Your task to perform on an android device: Search for duracell triple a on bestbuy.com, select the first entry, add it to the cart, then select checkout. Image 0: 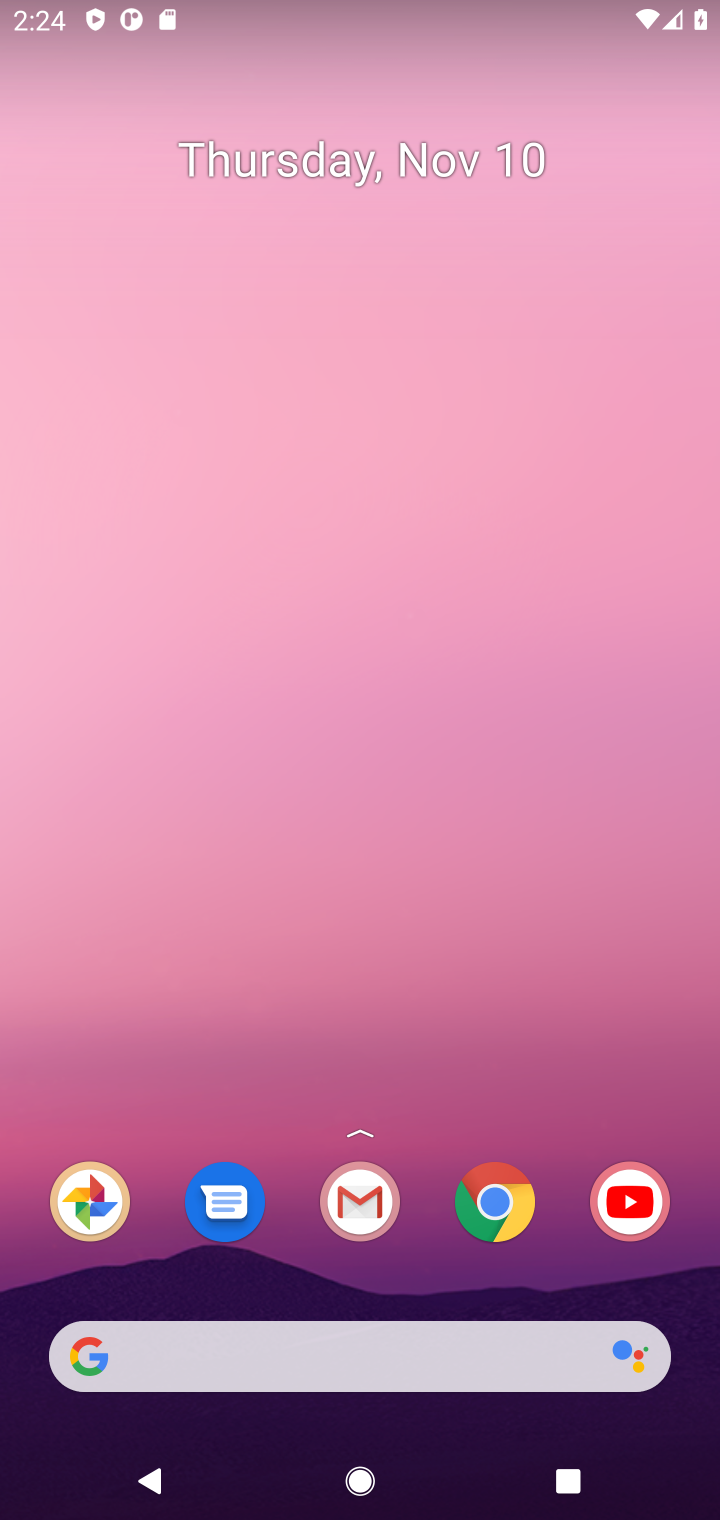
Step 0: click (515, 1200)
Your task to perform on an android device: Search for duracell triple a on bestbuy.com, select the first entry, add it to the cart, then select checkout. Image 1: 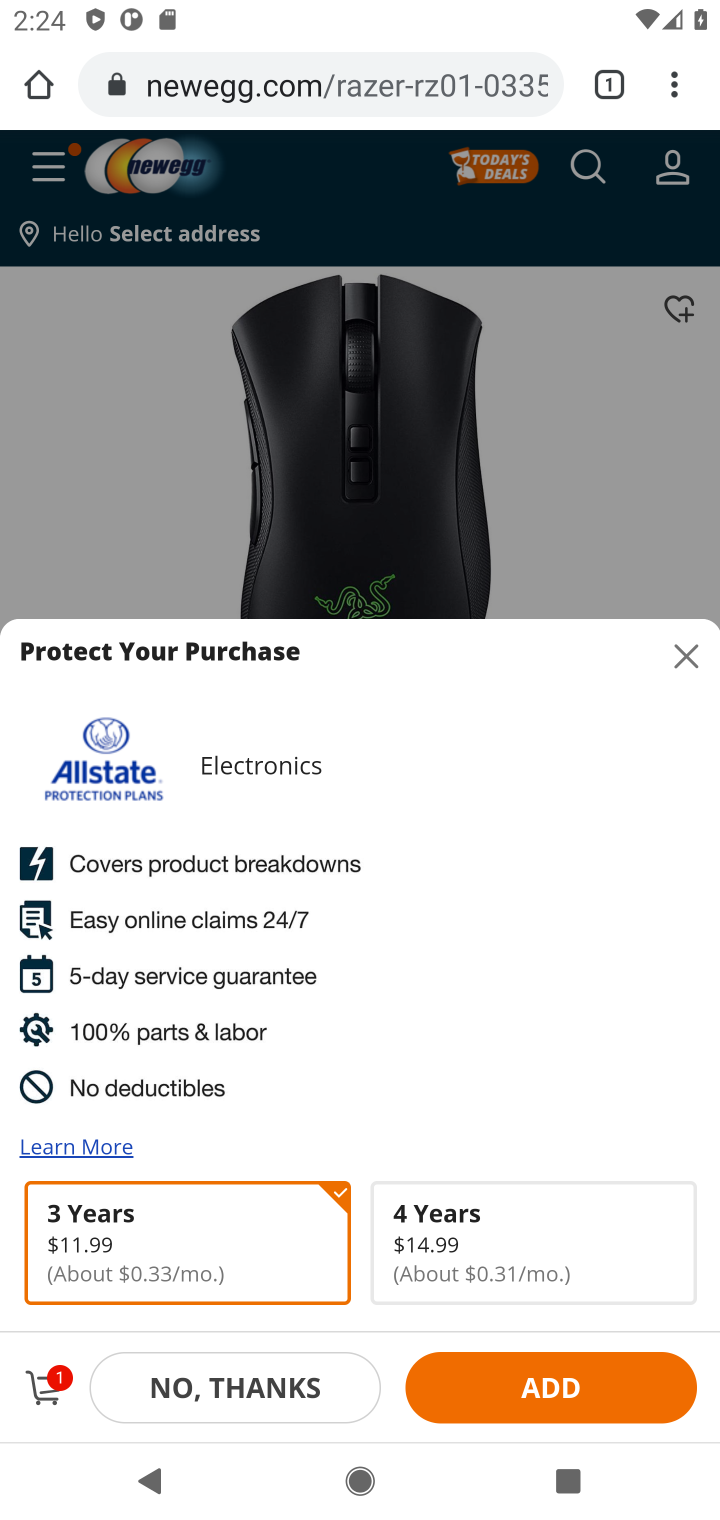
Step 1: click (421, 80)
Your task to perform on an android device: Search for duracell triple a on bestbuy.com, select the first entry, add it to the cart, then select checkout. Image 2: 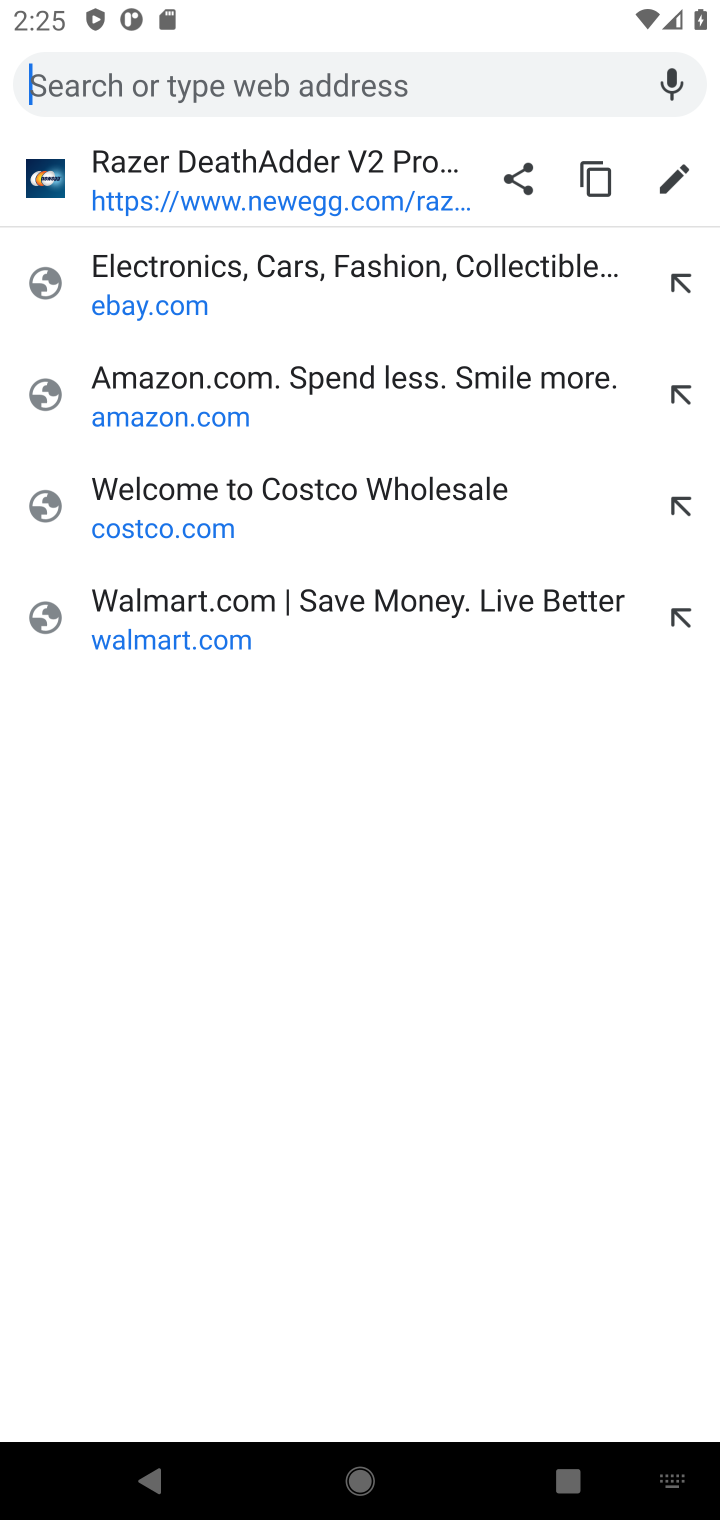
Step 2: press enter
Your task to perform on an android device: Search for duracell triple a on bestbuy.com, select the first entry, add it to the cart, then select checkout. Image 3: 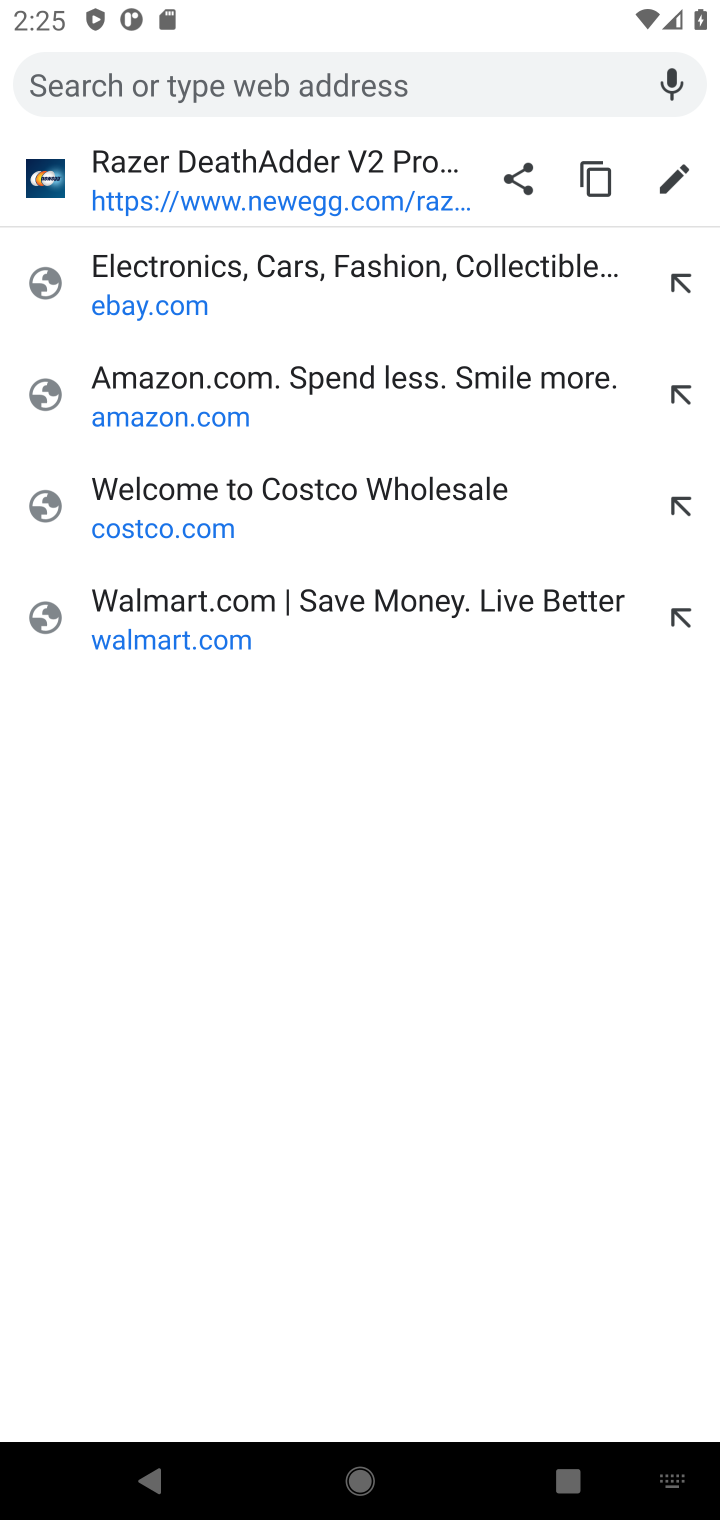
Step 3: type "bestbuy.com"
Your task to perform on an android device: Search for duracell triple a on bestbuy.com, select the first entry, add it to the cart, then select checkout. Image 4: 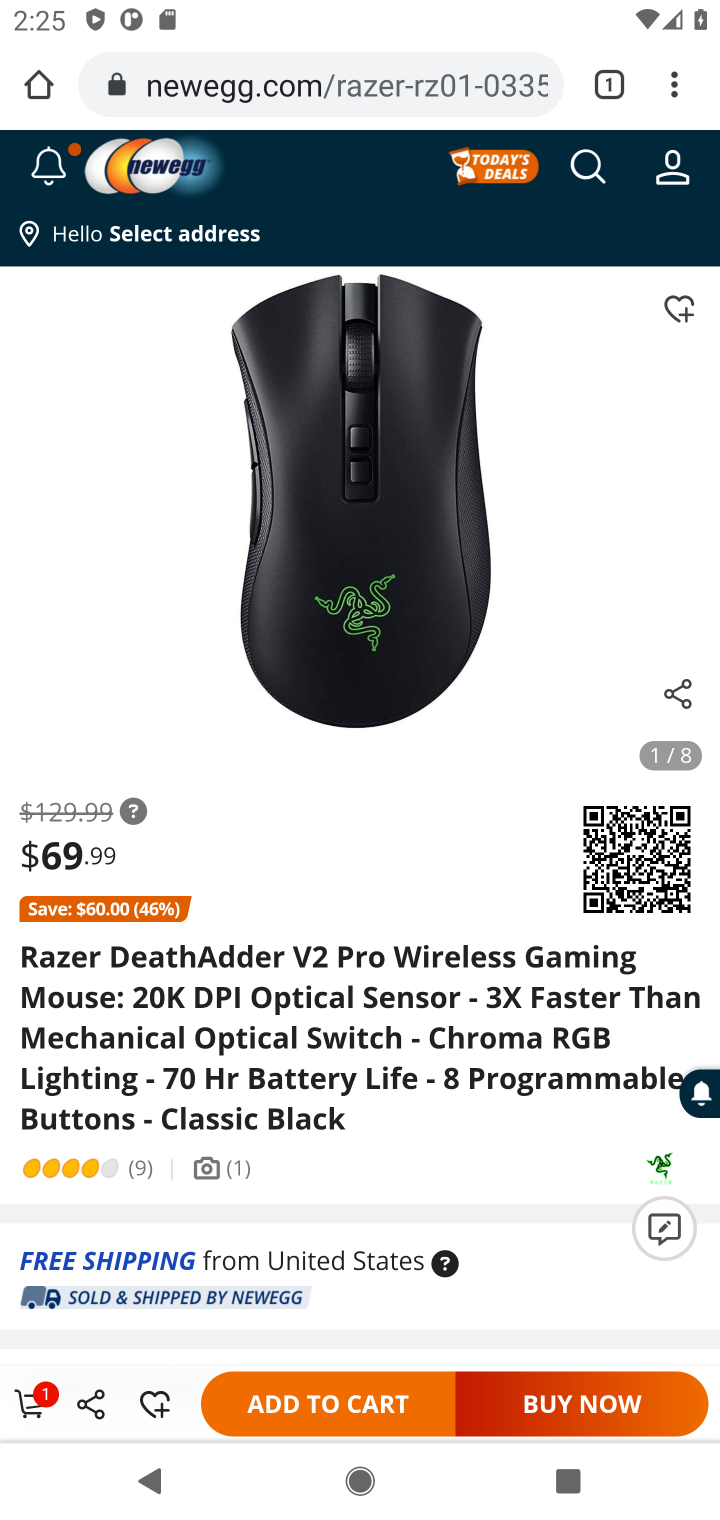
Step 4: click (330, 75)
Your task to perform on an android device: Search for duracell triple a on bestbuy.com, select the first entry, add it to the cart, then select checkout. Image 5: 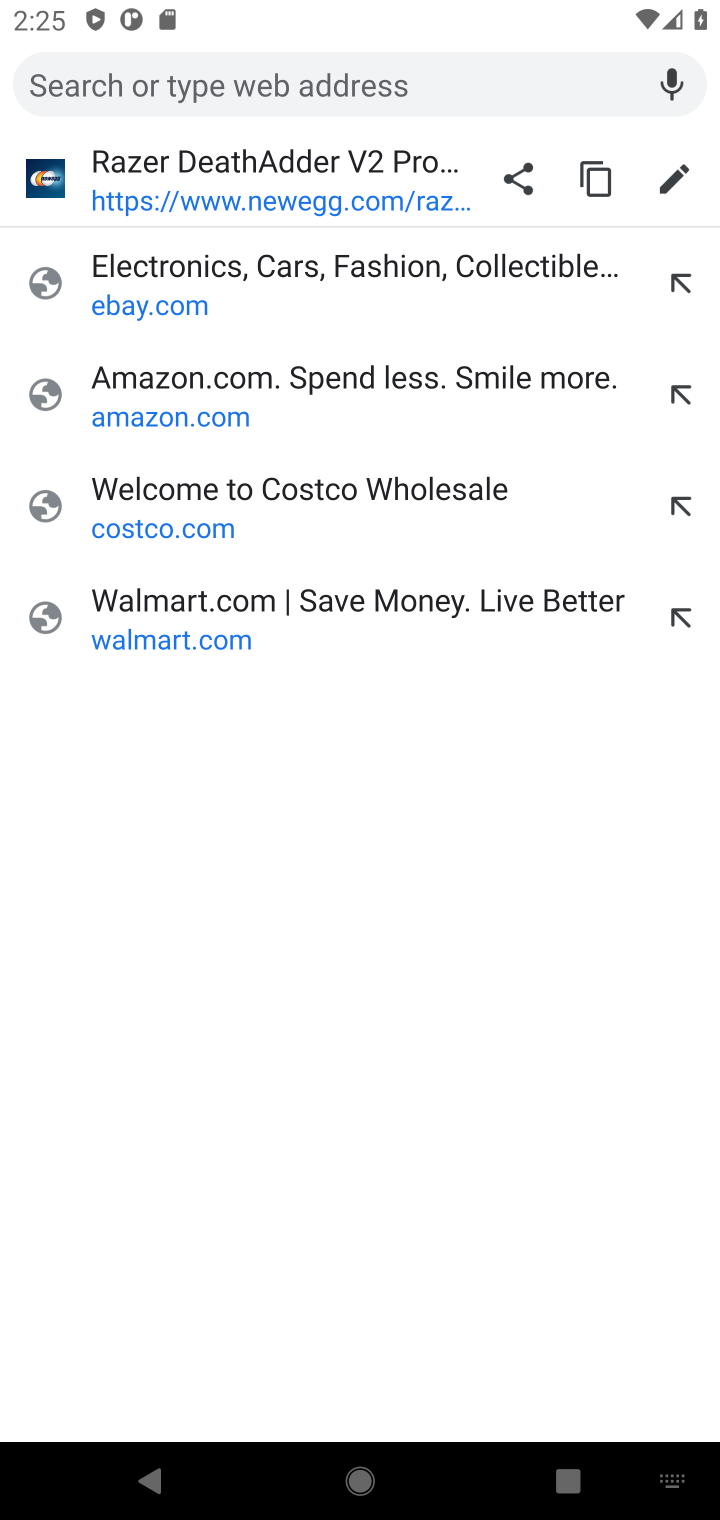
Step 5: press enter
Your task to perform on an android device: Search for duracell triple a on bestbuy.com, select the first entry, add it to the cart, then select checkout. Image 6: 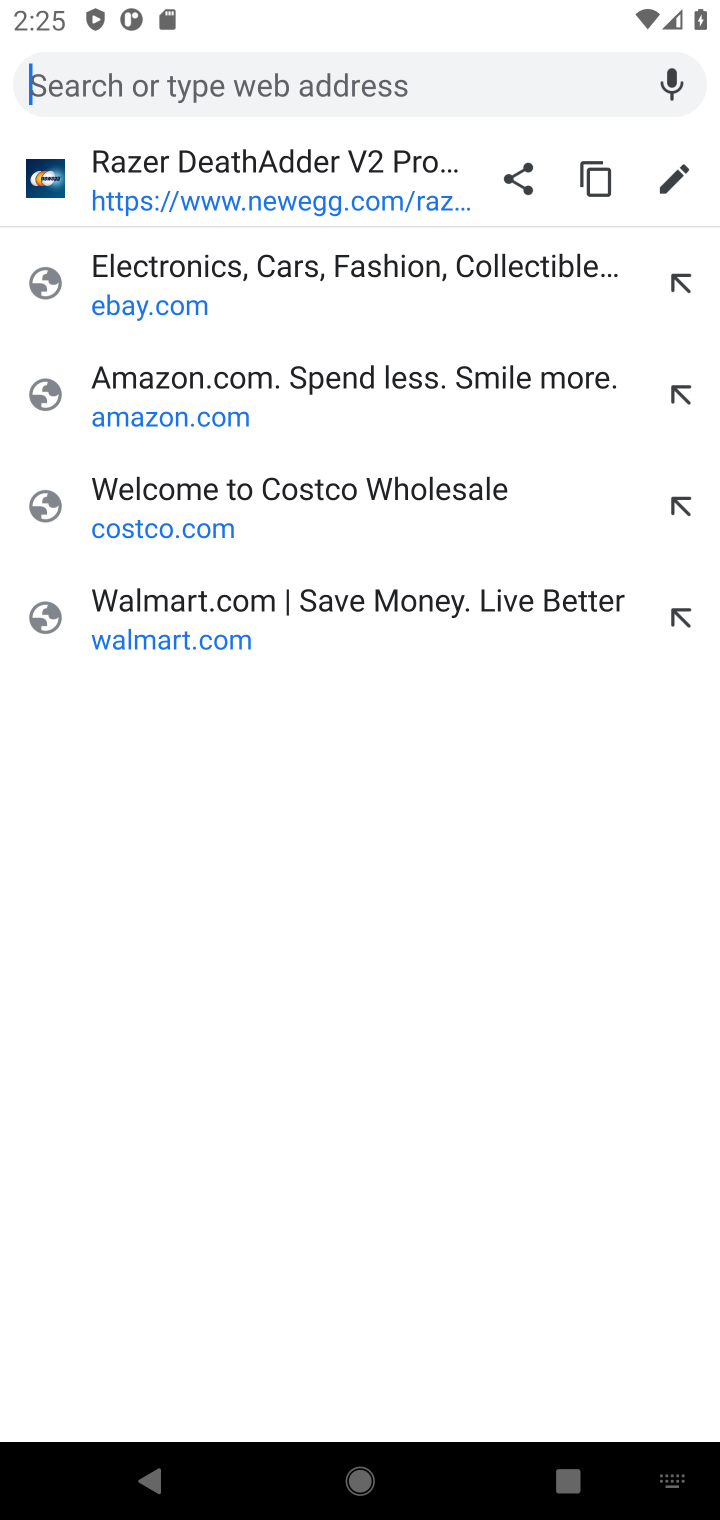
Step 6: type "bestbuy.com"
Your task to perform on an android device: Search for duracell triple a on bestbuy.com, select the first entry, add it to the cart, then select checkout. Image 7: 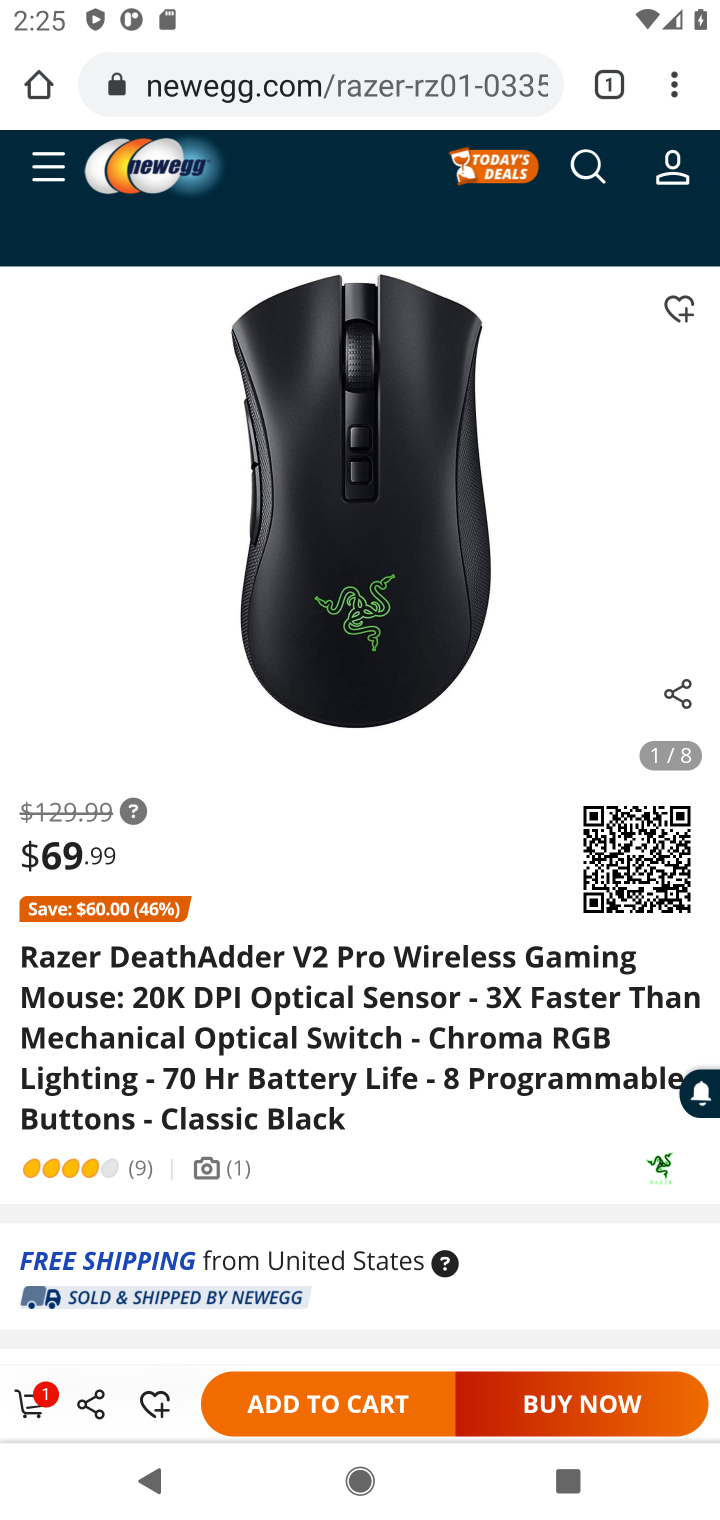
Step 7: click (34, 87)
Your task to perform on an android device: Search for duracell triple a on bestbuy.com, select the first entry, add it to the cart, then select checkout. Image 8: 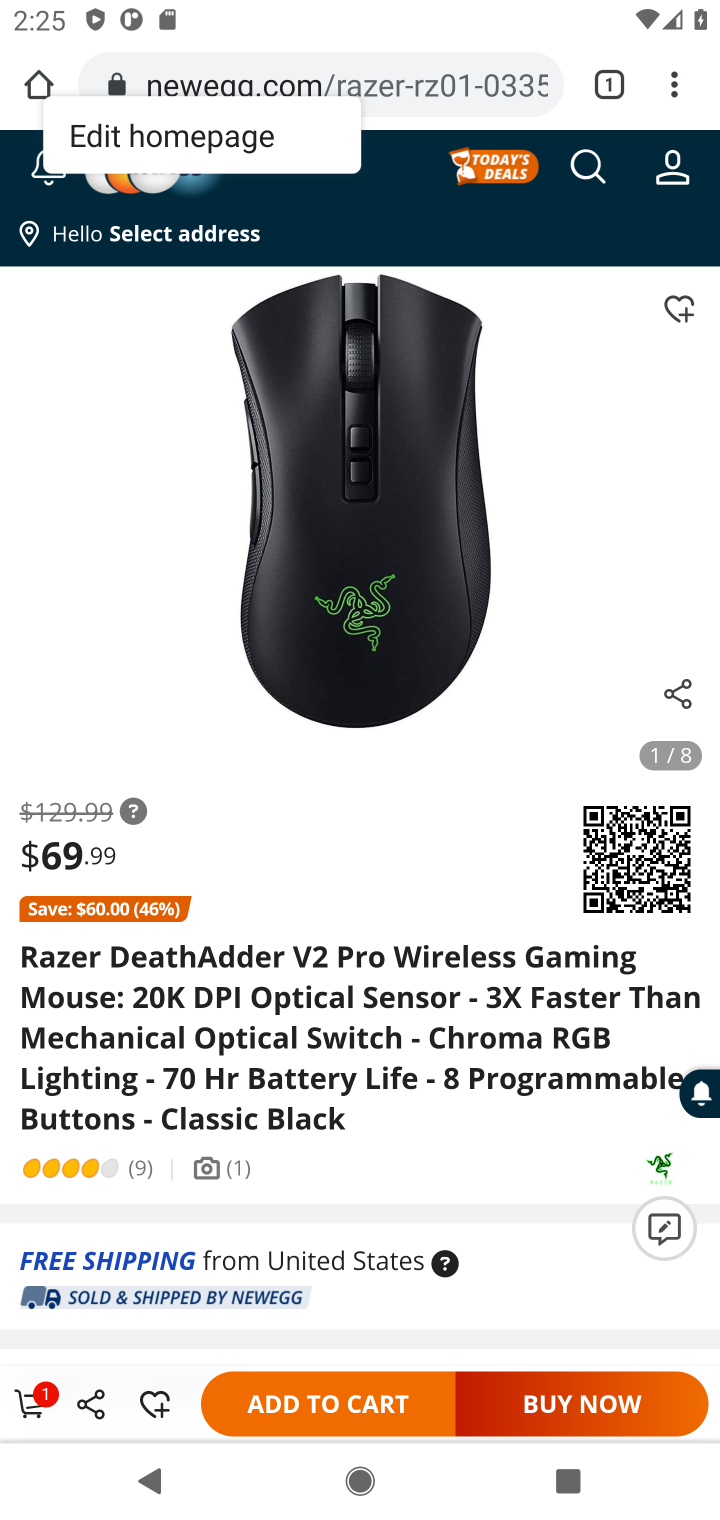
Step 8: click (47, 86)
Your task to perform on an android device: Search for duracell triple a on bestbuy.com, select the first entry, add it to the cart, then select checkout. Image 9: 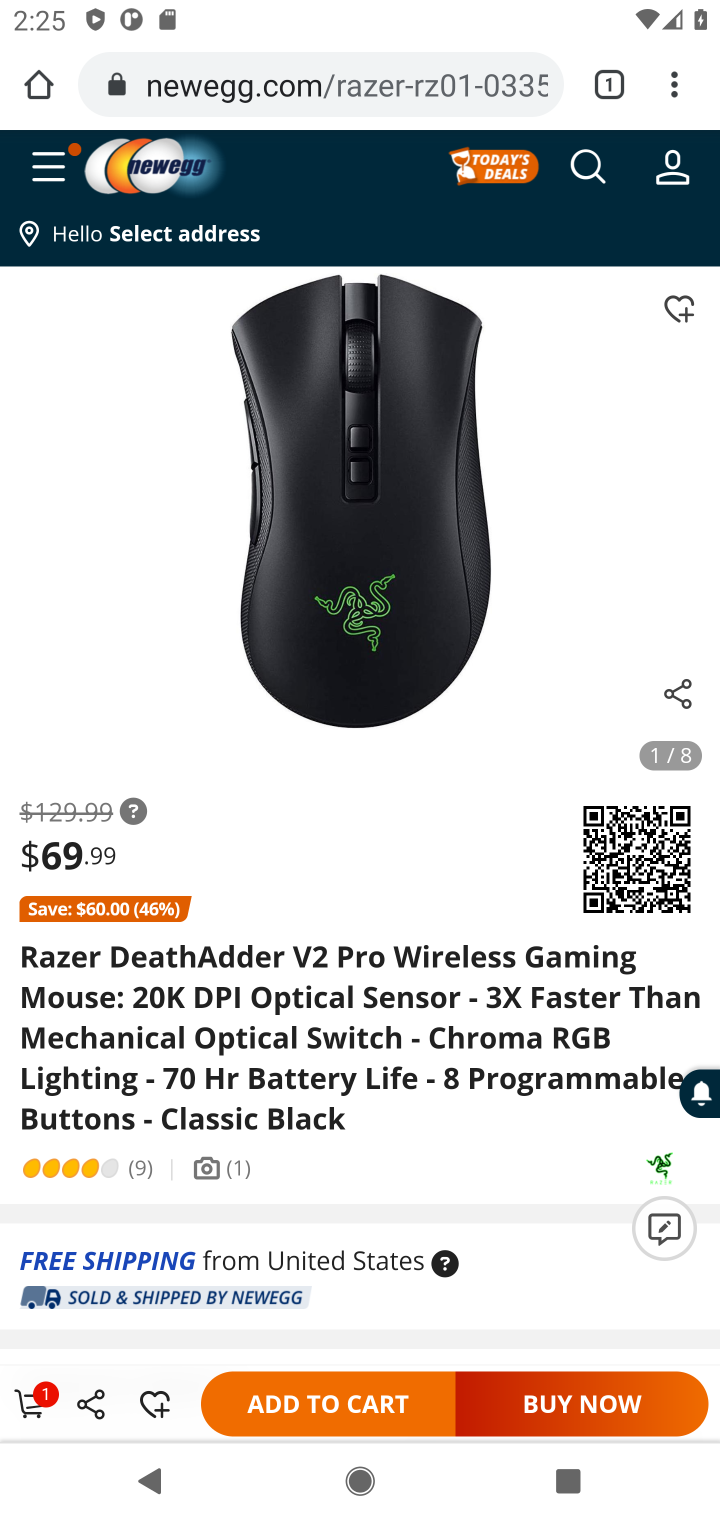
Step 9: click (47, 86)
Your task to perform on an android device: Search for duracell triple a on bestbuy.com, select the first entry, add it to the cart, then select checkout. Image 10: 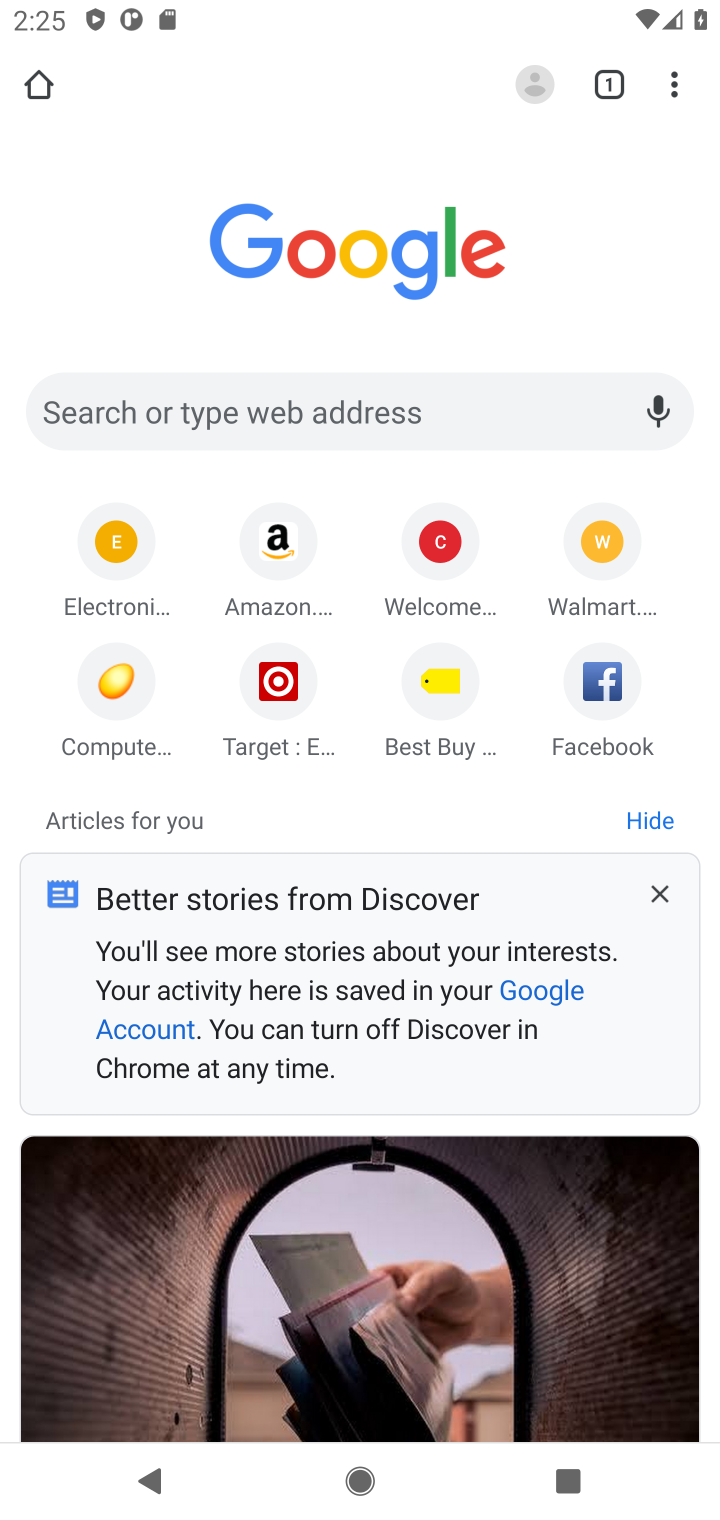
Step 10: click (487, 417)
Your task to perform on an android device: Search for duracell triple a on bestbuy.com, select the first entry, add it to the cart, then select checkout. Image 11: 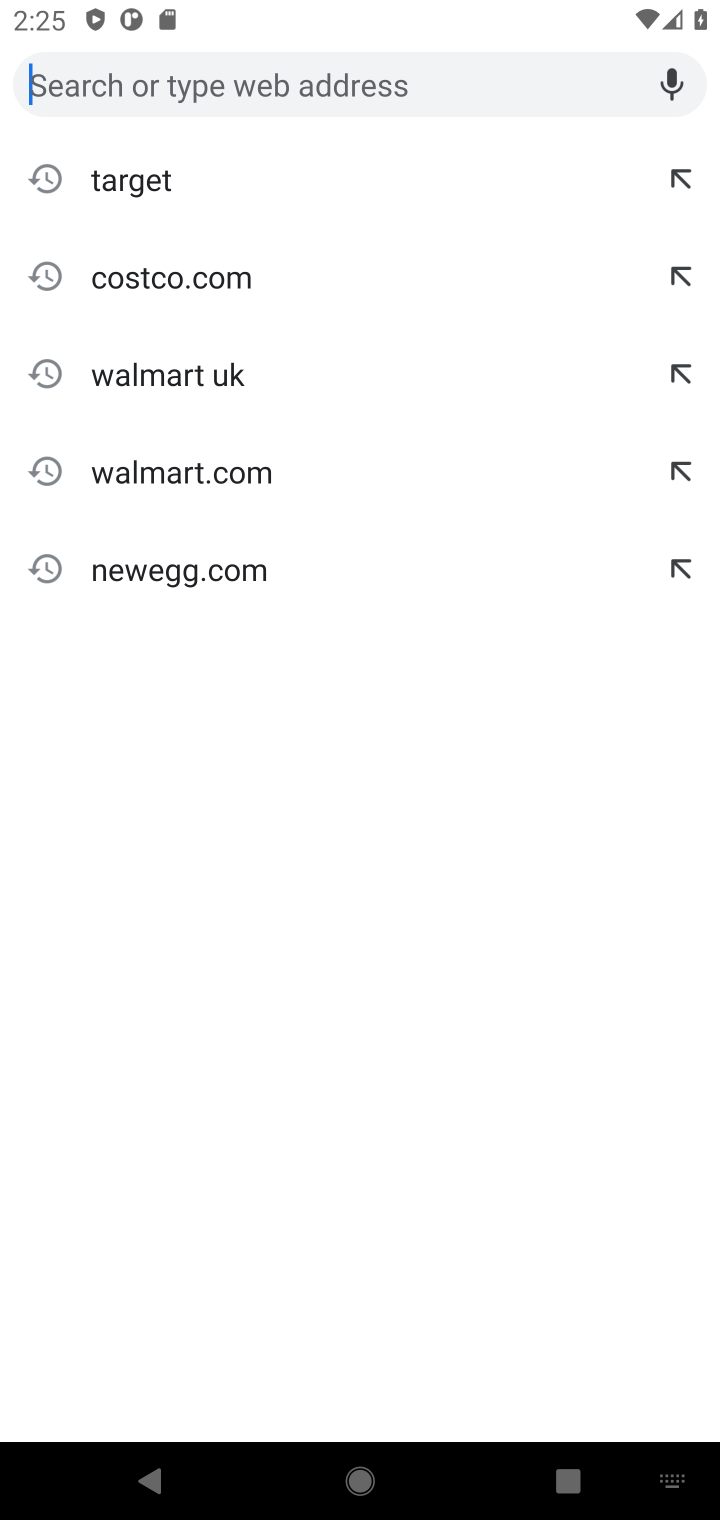
Step 11: press enter
Your task to perform on an android device: Search for duracell triple a on bestbuy.com, select the first entry, add it to the cart, then select checkout. Image 12: 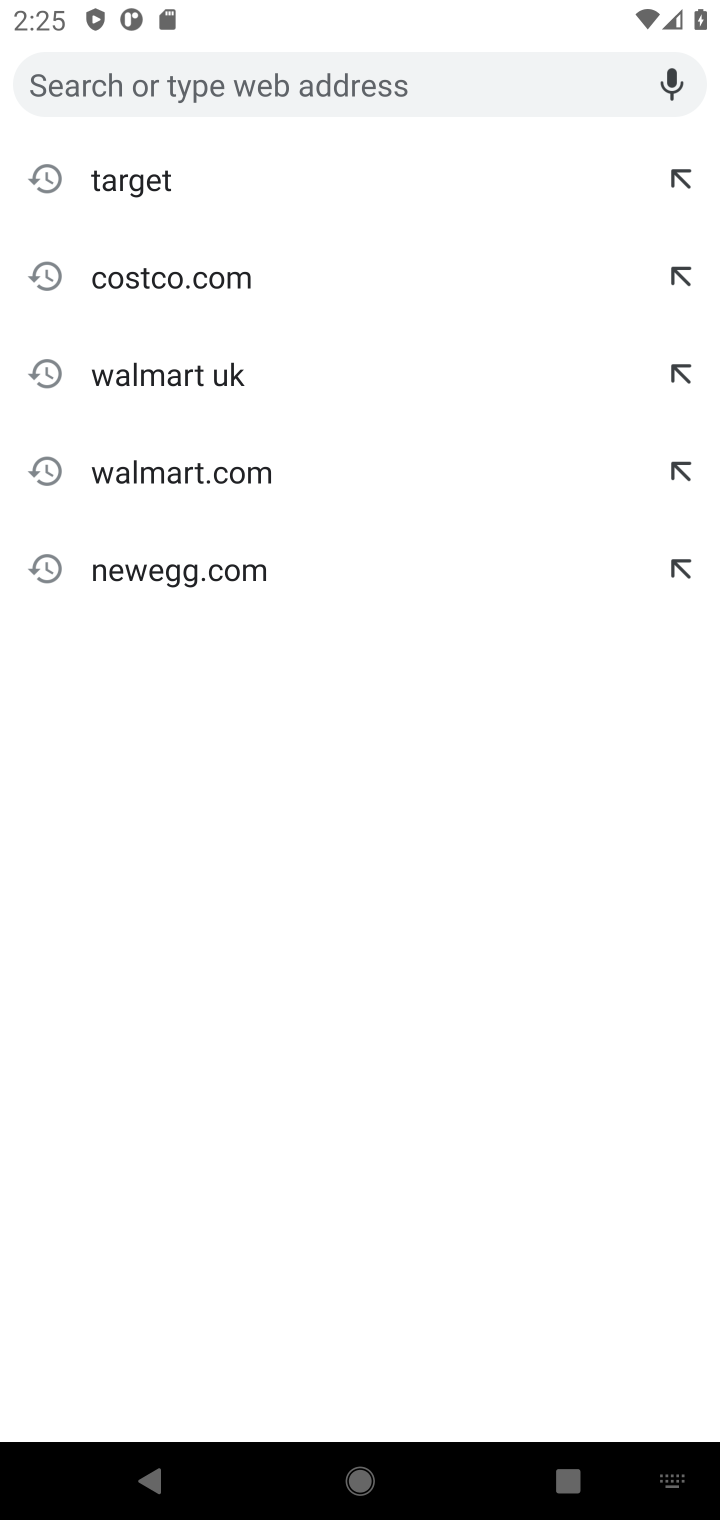
Step 12: type "bestbuy.com"
Your task to perform on an android device: Search for duracell triple a on bestbuy.com, select the first entry, add it to the cart, then select checkout. Image 13: 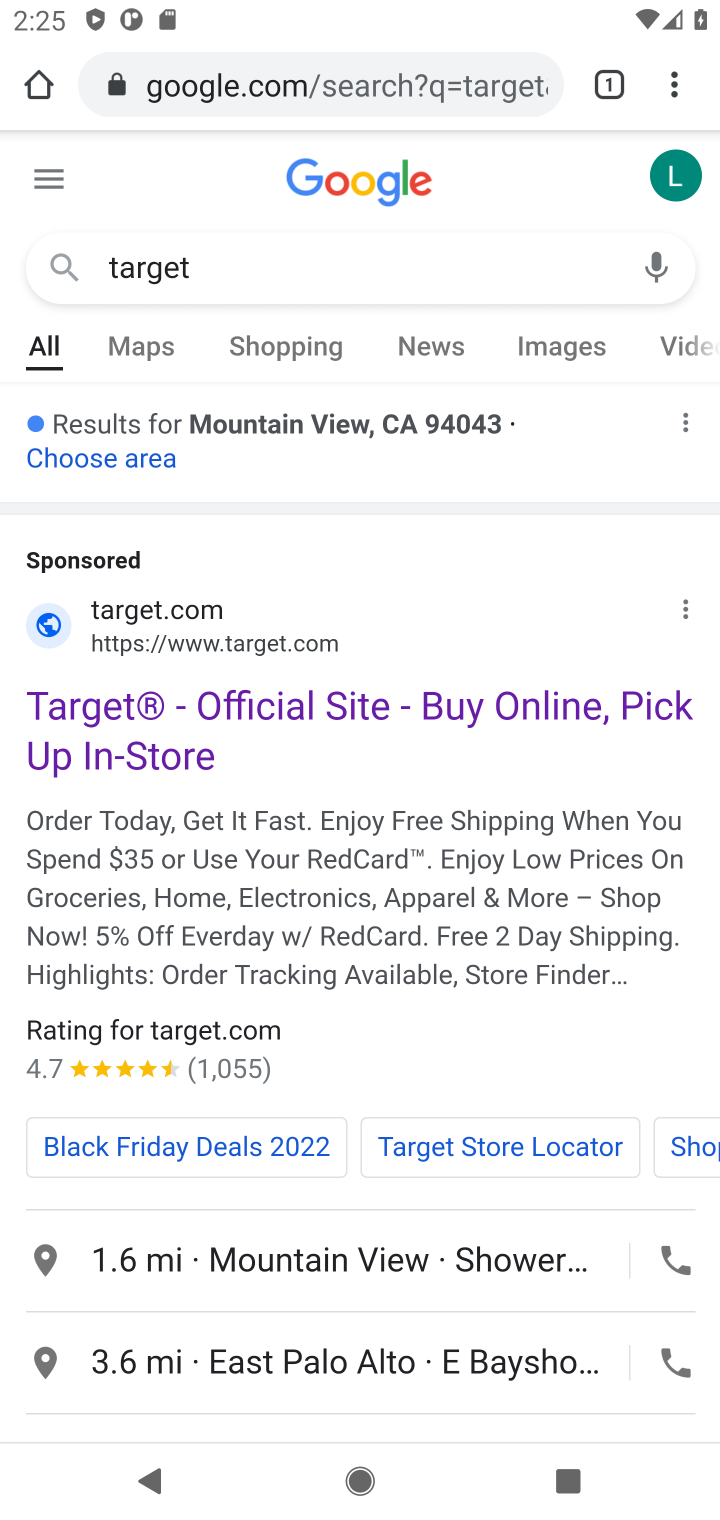
Step 13: click (155, 635)
Your task to perform on an android device: Search for duracell triple a on bestbuy.com, select the first entry, add it to the cart, then select checkout. Image 14: 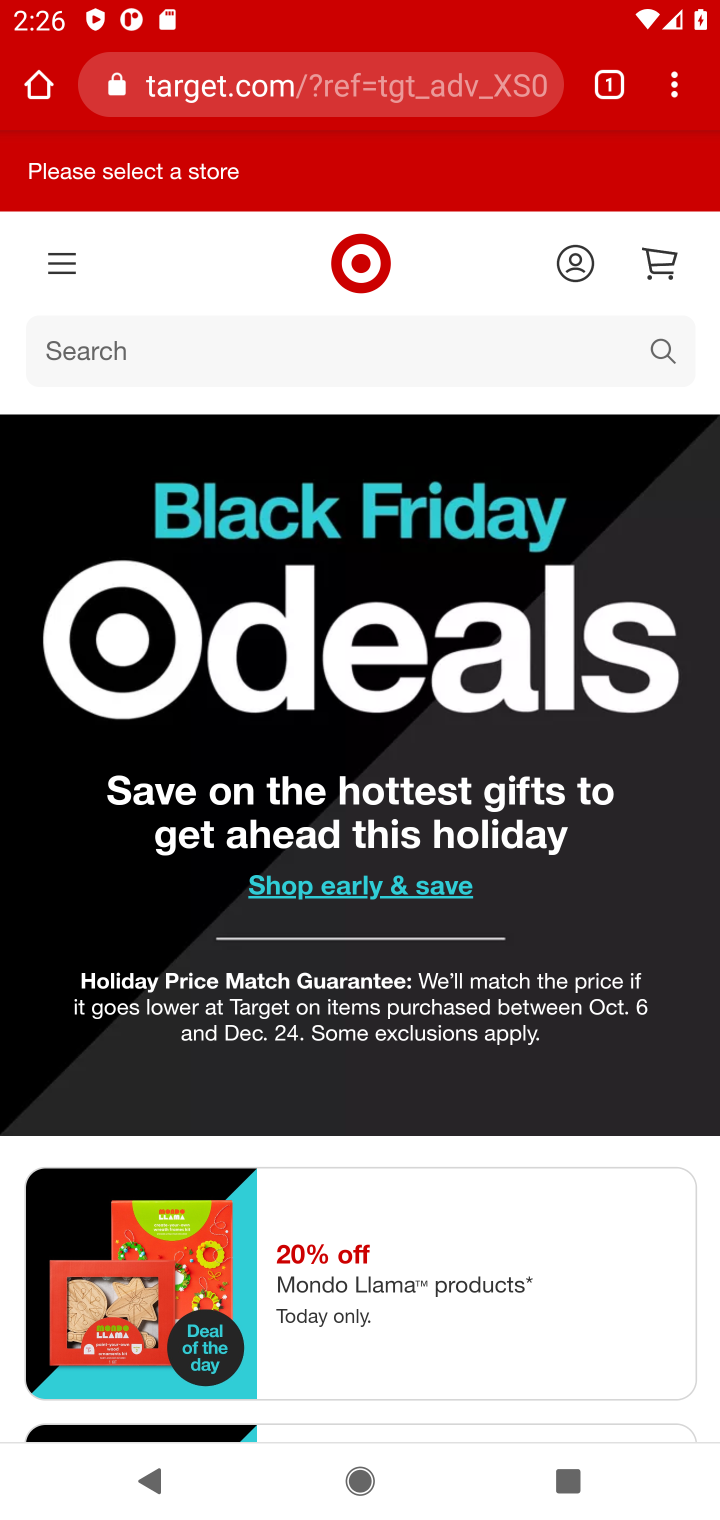
Step 14: click (406, 93)
Your task to perform on an android device: Search for duracell triple a on bestbuy.com, select the first entry, add it to the cart, then select checkout. Image 15: 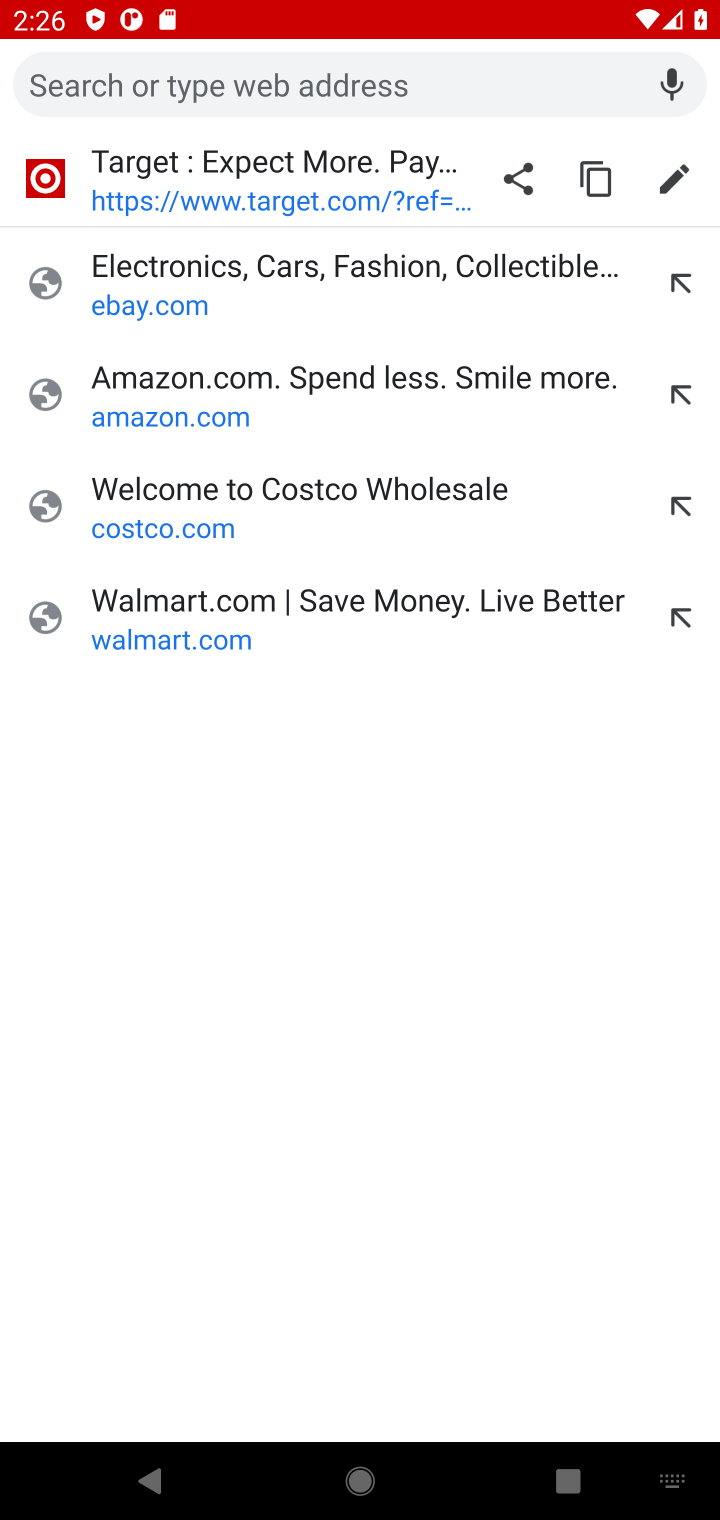
Step 15: type "bestbuy.com"
Your task to perform on an android device: Search for duracell triple a on bestbuy.com, select the first entry, add it to the cart, then select checkout. Image 16: 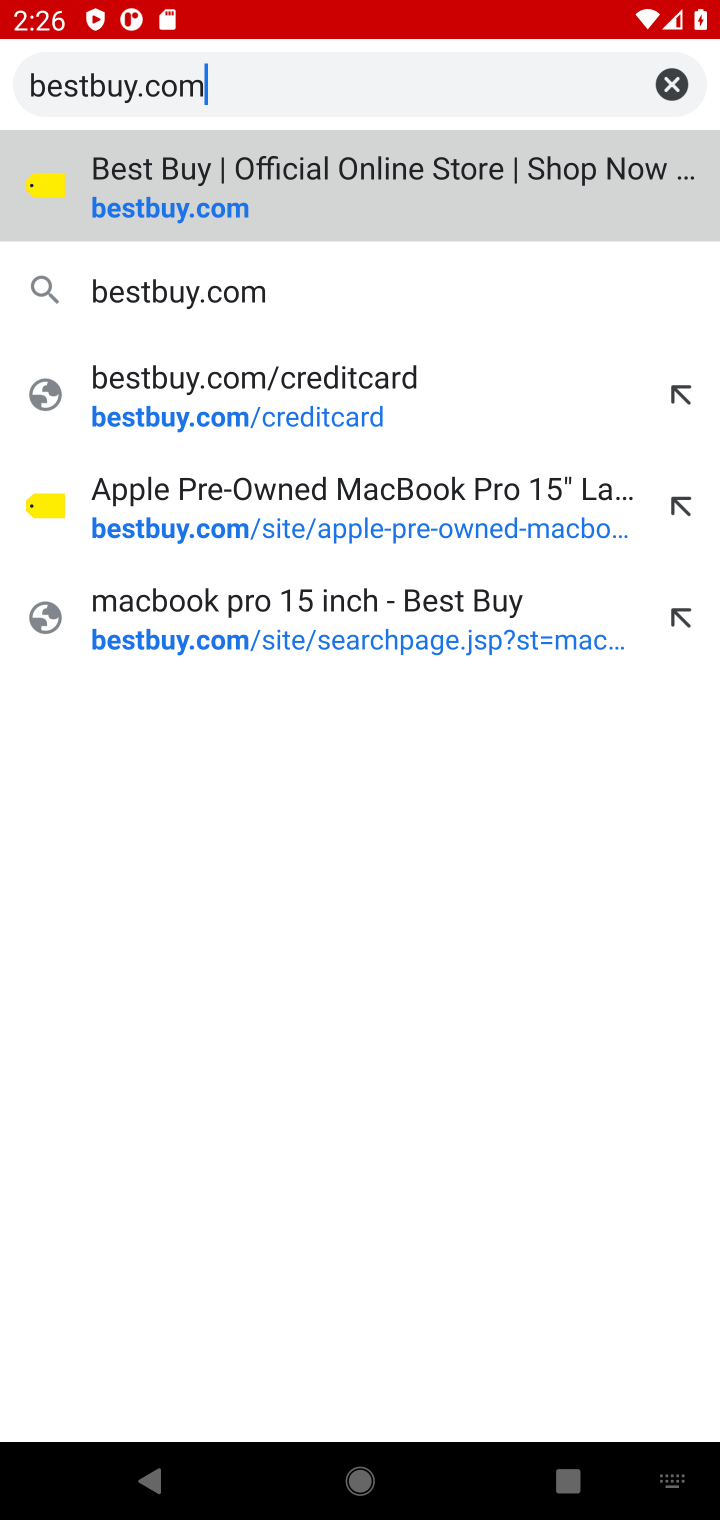
Step 16: press enter
Your task to perform on an android device: Search for duracell triple a on bestbuy.com, select the first entry, add it to the cart, then select checkout. Image 17: 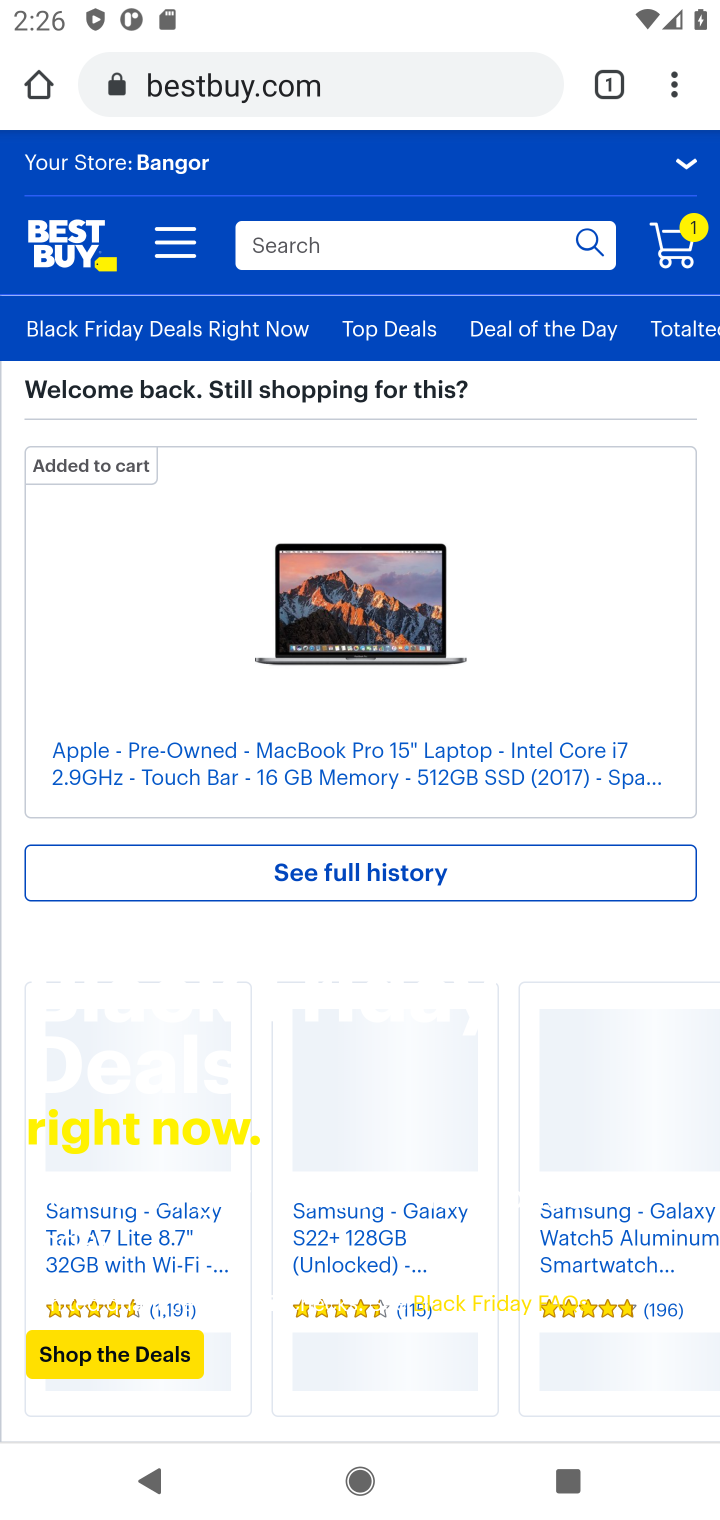
Step 17: click (434, 229)
Your task to perform on an android device: Search for duracell triple a on bestbuy.com, select the first entry, add it to the cart, then select checkout. Image 18: 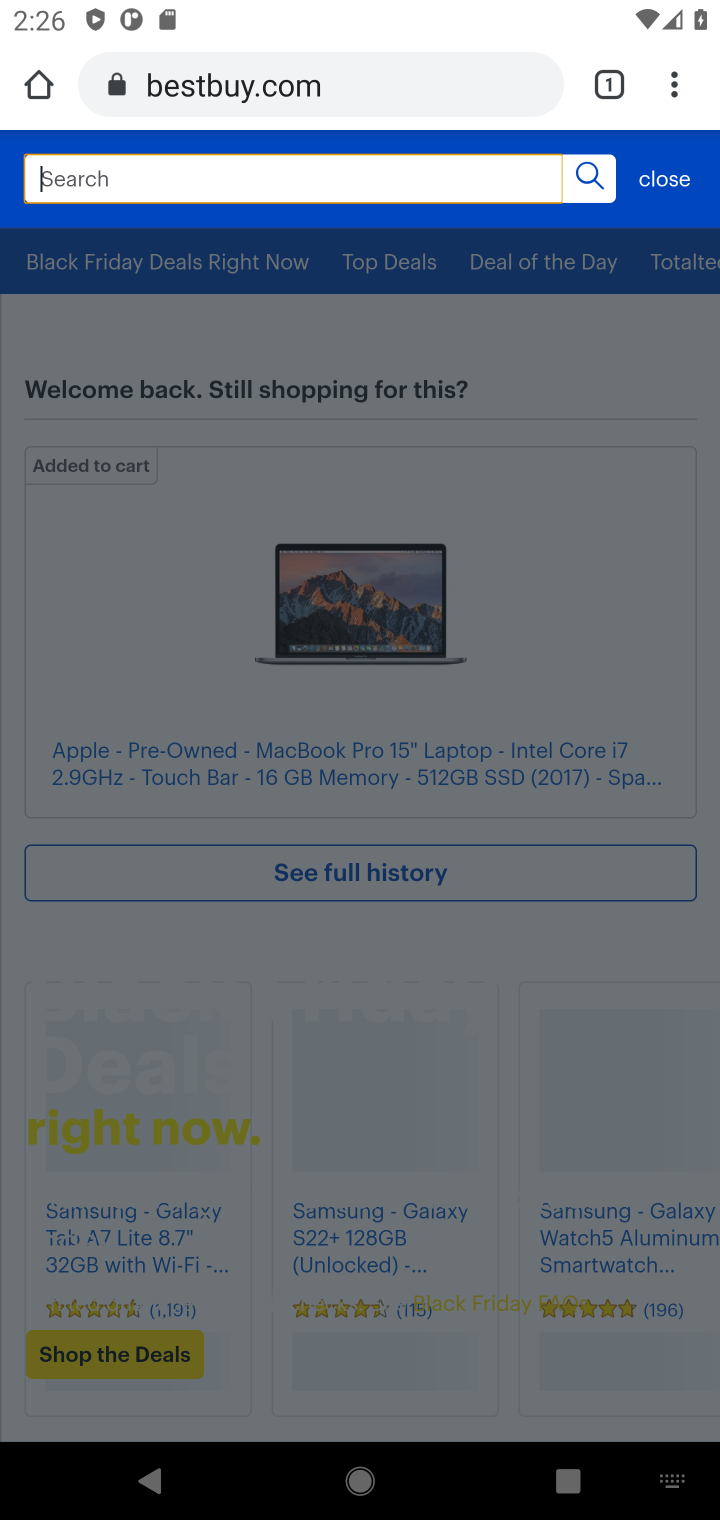
Step 18: type "duracell triple a "
Your task to perform on an android device: Search for duracell triple a on bestbuy.com, select the first entry, add it to the cart, then select checkout. Image 19: 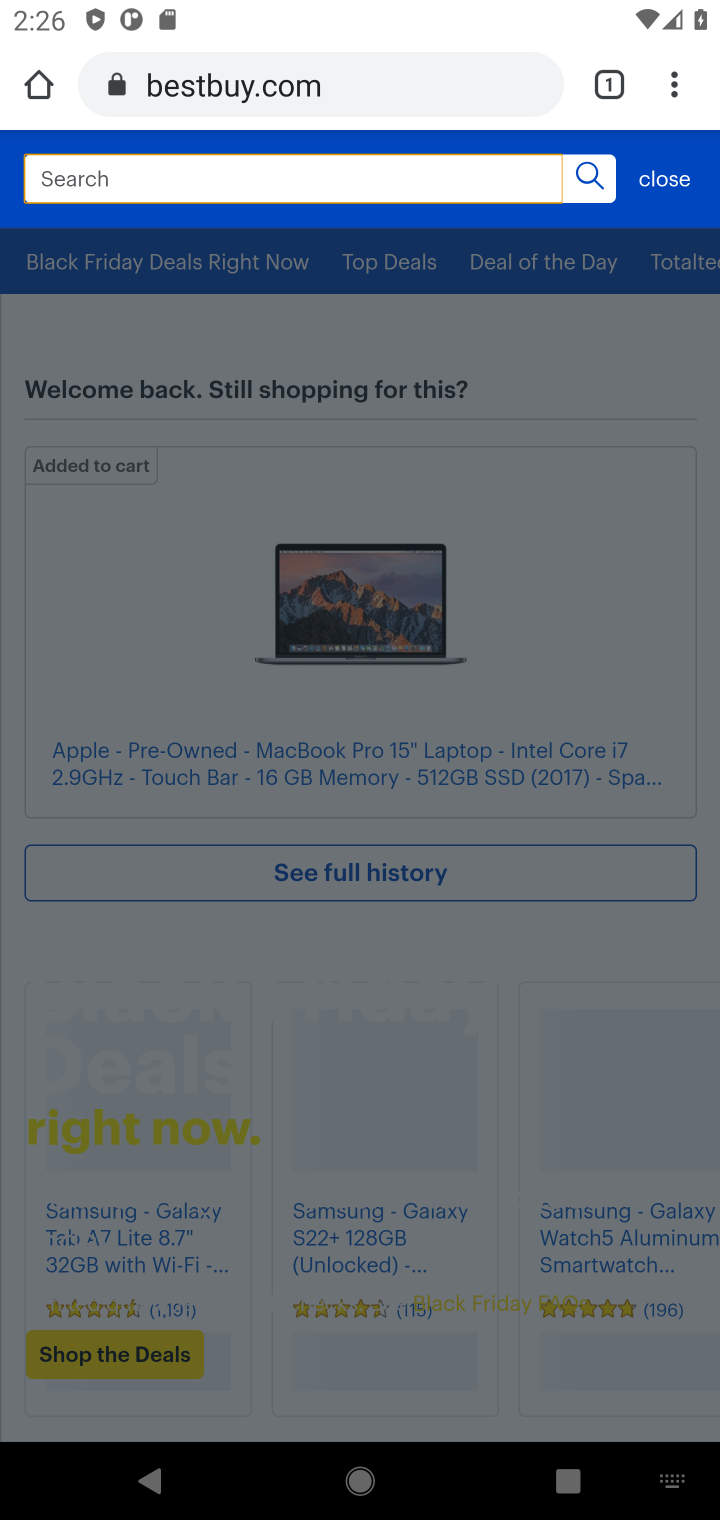
Step 19: press enter
Your task to perform on an android device: Search for duracell triple a on bestbuy.com, select the first entry, add it to the cart, then select checkout. Image 20: 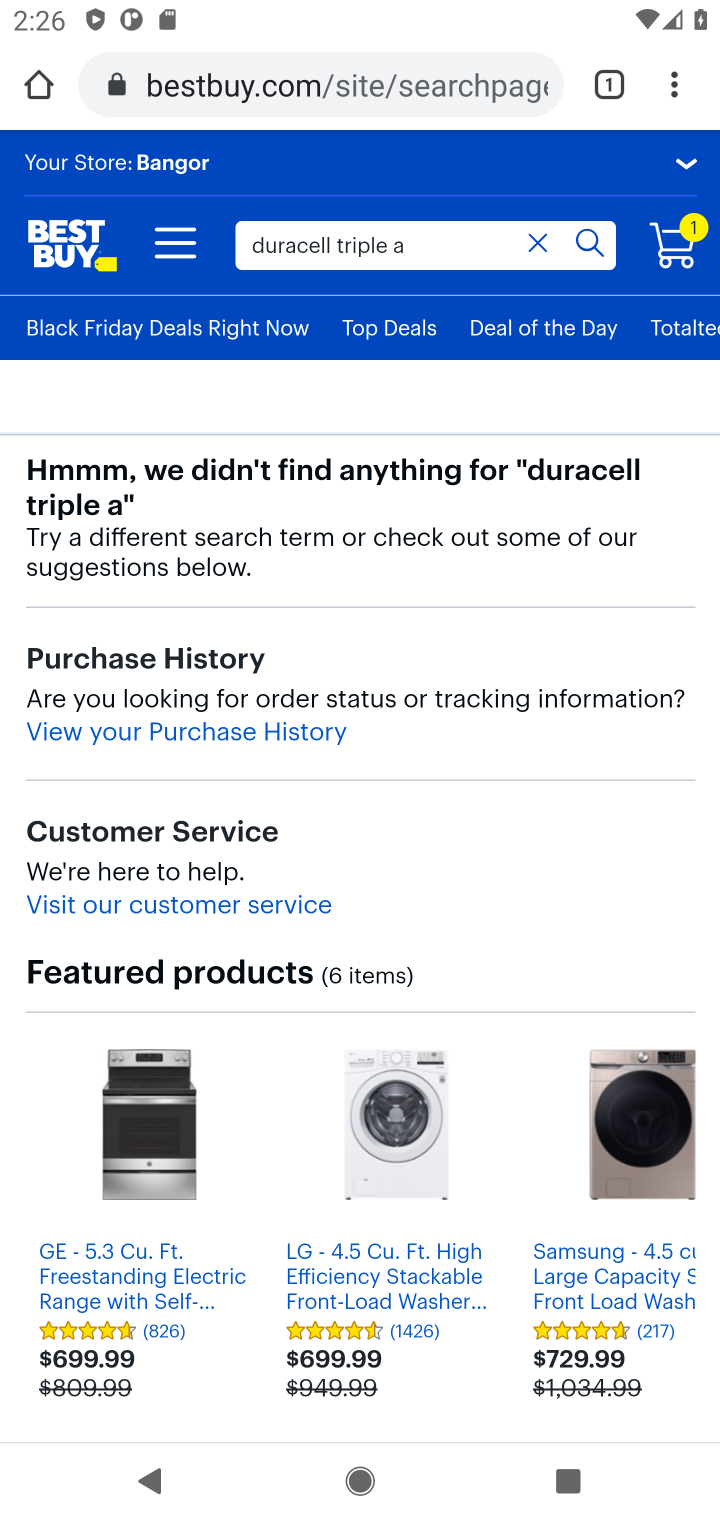
Step 20: task complete